Your task to perform on an android device: turn off sleep mode Image 0: 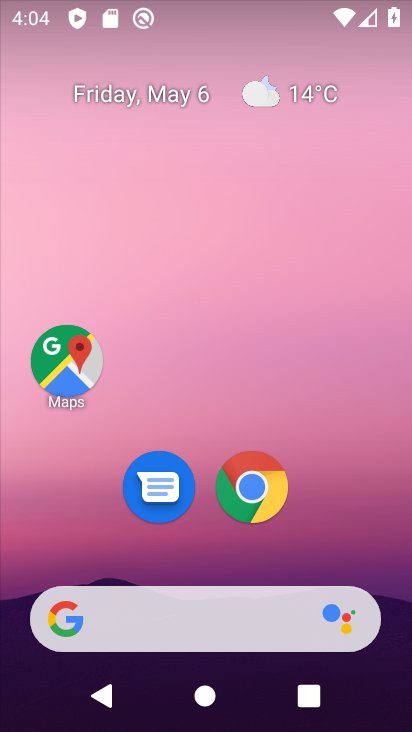
Step 0: drag from (203, 569) to (144, 31)
Your task to perform on an android device: turn off sleep mode Image 1: 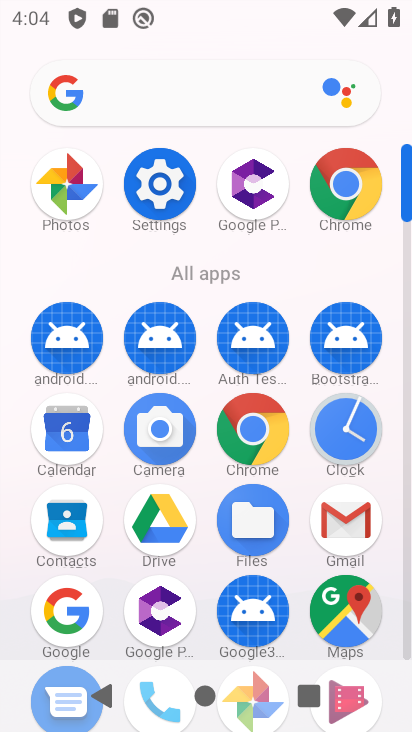
Step 1: click (156, 209)
Your task to perform on an android device: turn off sleep mode Image 2: 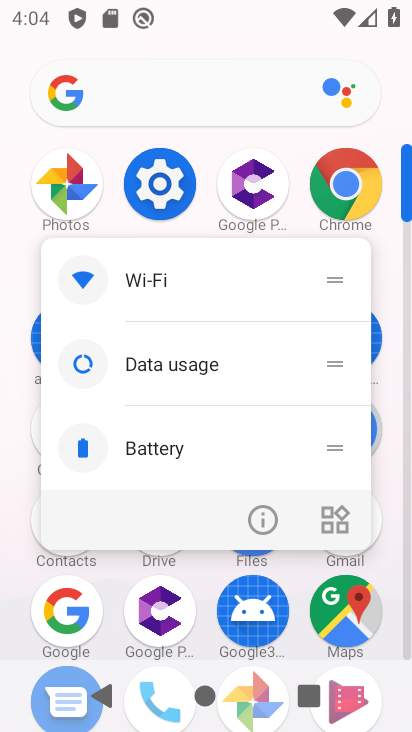
Step 2: click (154, 179)
Your task to perform on an android device: turn off sleep mode Image 3: 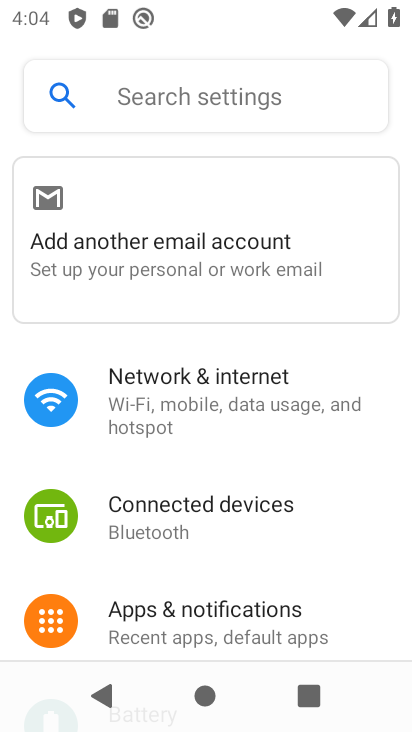
Step 3: drag from (220, 451) to (143, 129)
Your task to perform on an android device: turn off sleep mode Image 4: 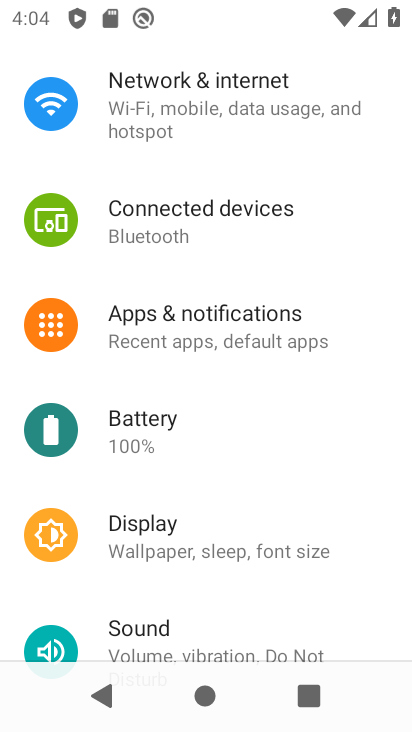
Step 4: drag from (260, 578) to (180, 253)
Your task to perform on an android device: turn off sleep mode Image 5: 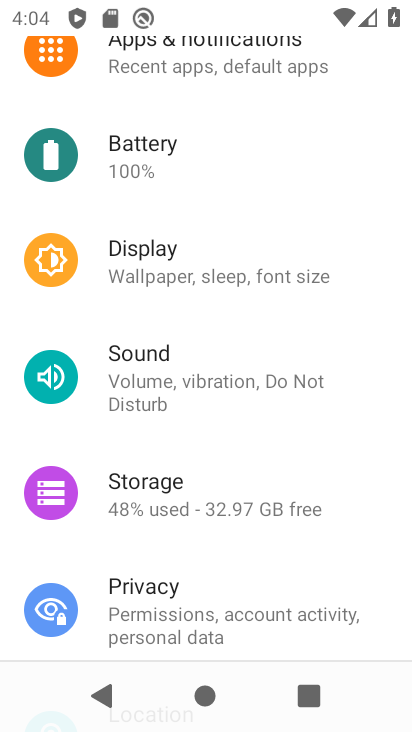
Step 5: click (179, 252)
Your task to perform on an android device: turn off sleep mode Image 6: 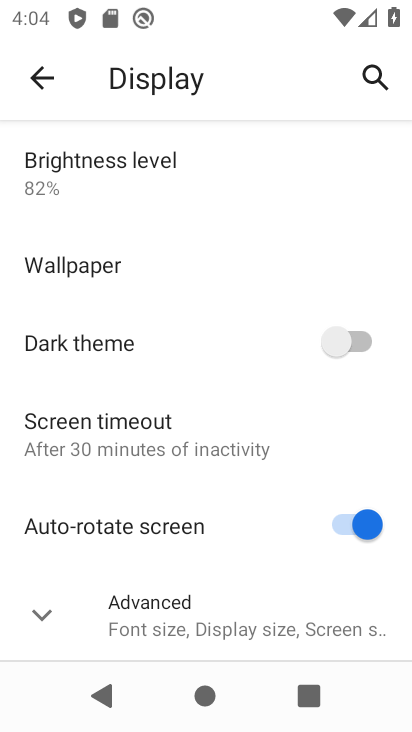
Step 6: drag from (161, 571) to (115, 103)
Your task to perform on an android device: turn off sleep mode Image 7: 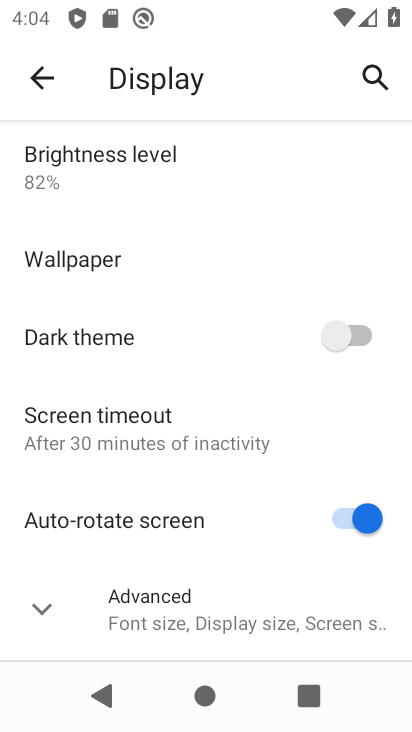
Step 7: click (124, 626)
Your task to perform on an android device: turn off sleep mode Image 8: 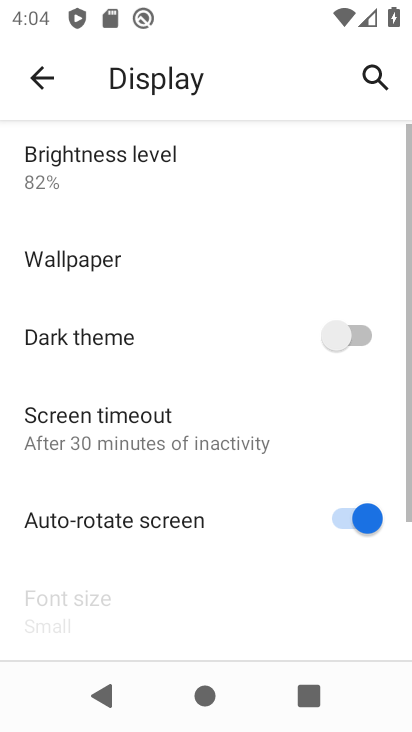
Step 8: task complete